Your task to perform on an android device: toggle priority inbox in the gmail app Image 0: 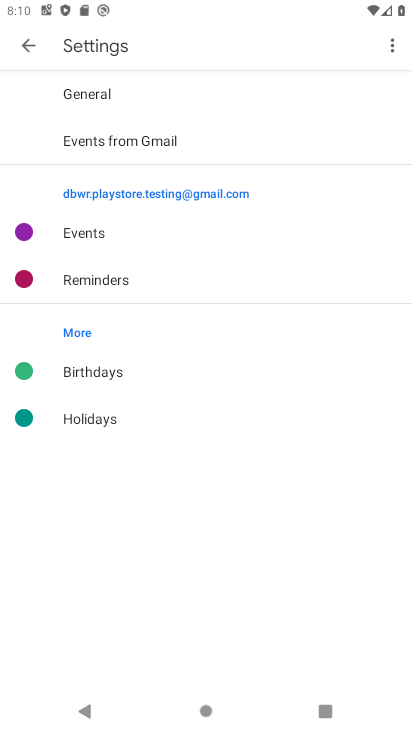
Step 0: press home button
Your task to perform on an android device: toggle priority inbox in the gmail app Image 1: 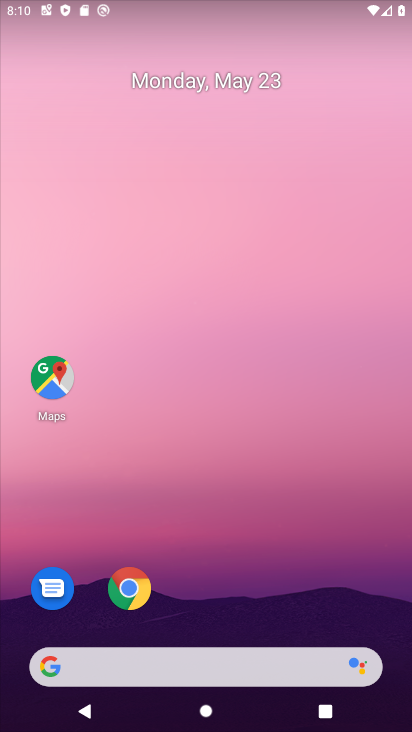
Step 1: drag from (396, 651) to (366, 31)
Your task to perform on an android device: toggle priority inbox in the gmail app Image 2: 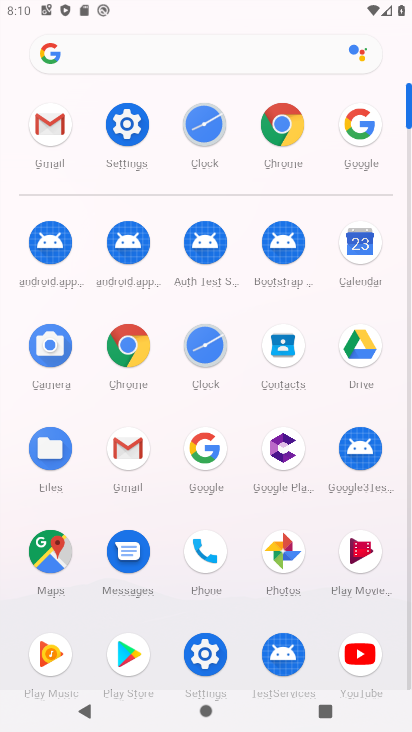
Step 2: click (141, 454)
Your task to perform on an android device: toggle priority inbox in the gmail app Image 3: 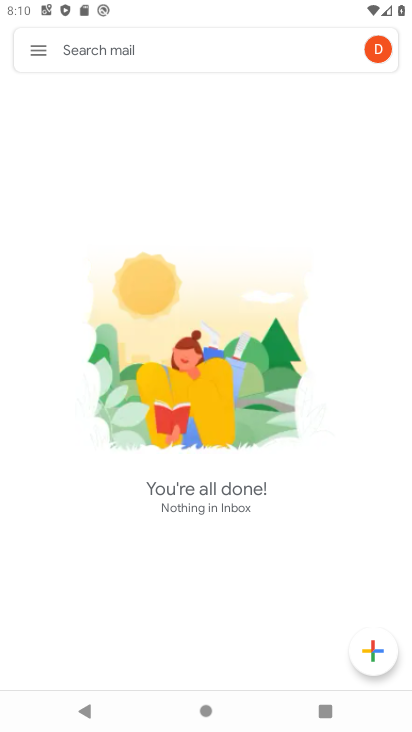
Step 3: click (35, 45)
Your task to perform on an android device: toggle priority inbox in the gmail app Image 4: 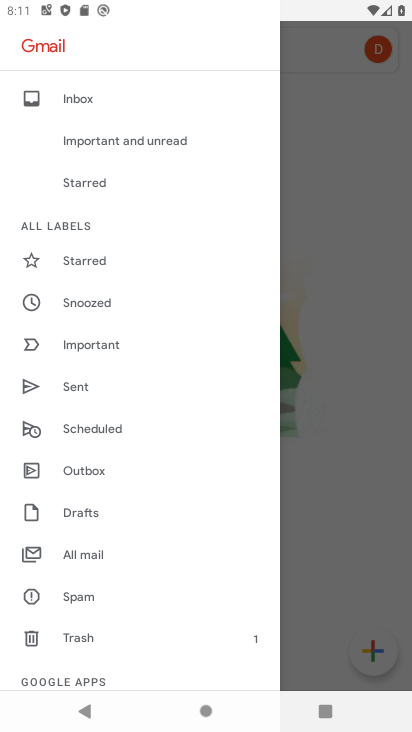
Step 4: drag from (172, 642) to (158, 226)
Your task to perform on an android device: toggle priority inbox in the gmail app Image 5: 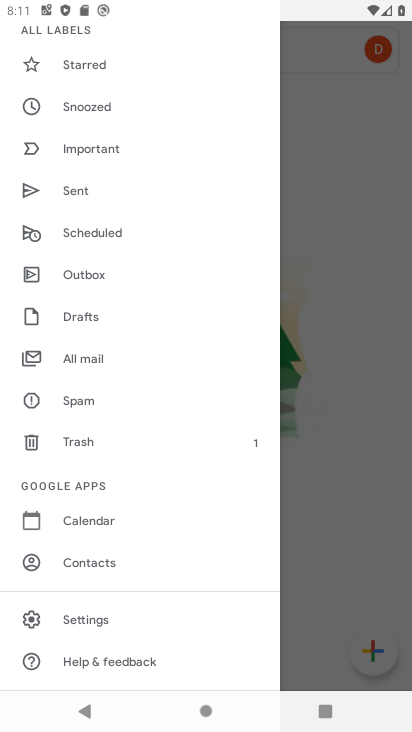
Step 5: click (60, 609)
Your task to perform on an android device: toggle priority inbox in the gmail app Image 6: 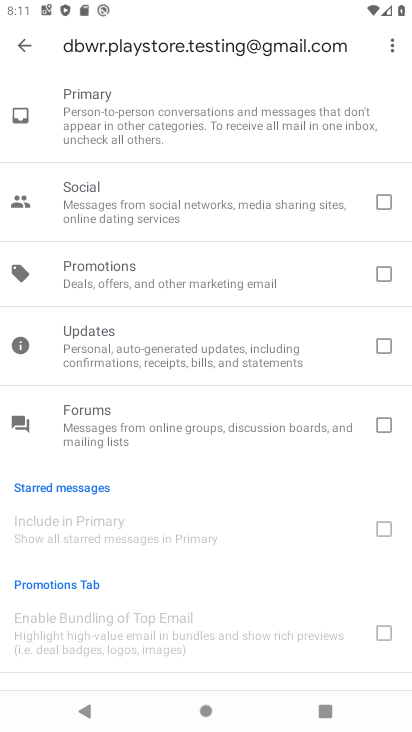
Step 6: drag from (257, 605) to (263, 283)
Your task to perform on an android device: toggle priority inbox in the gmail app Image 7: 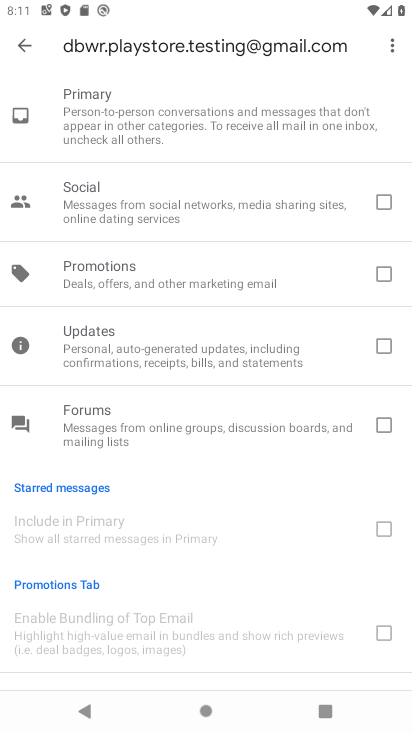
Step 7: click (24, 48)
Your task to perform on an android device: toggle priority inbox in the gmail app Image 8: 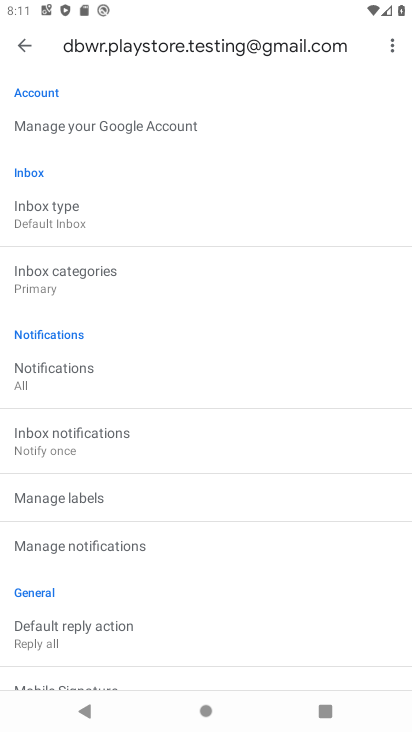
Step 8: click (36, 206)
Your task to perform on an android device: toggle priority inbox in the gmail app Image 9: 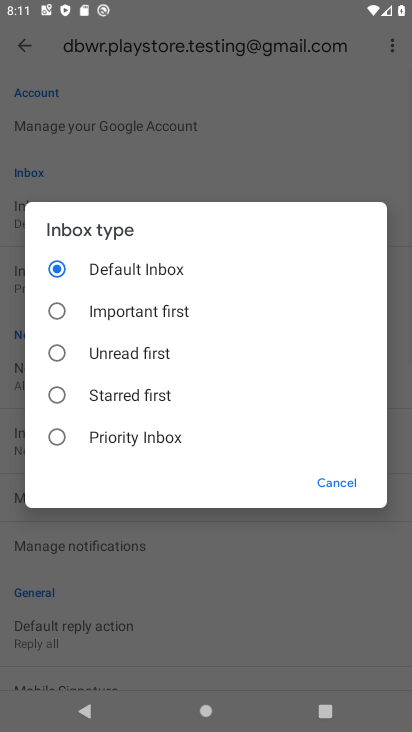
Step 9: click (89, 436)
Your task to perform on an android device: toggle priority inbox in the gmail app Image 10: 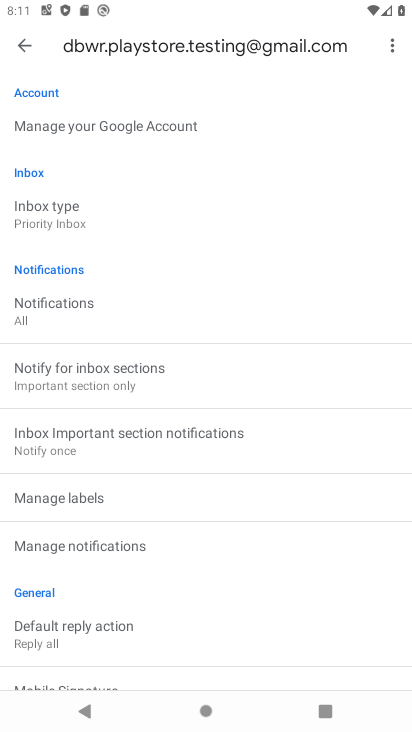
Step 10: task complete